Your task to perform on an android device: Go to Android settings Image 0: 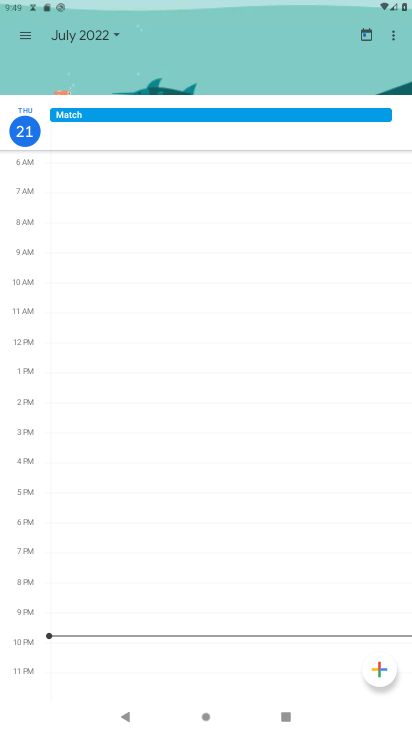
Step 0: press home button
Your task to perform on an android device: Go to Android settings Image 1: 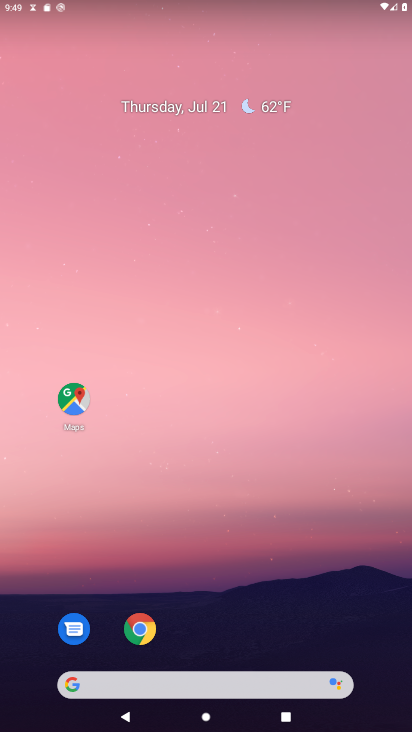
Step 1: drag from (240, 639) to (219, 287)
Your task to perform on an android device: Go to Android settings Image 2: 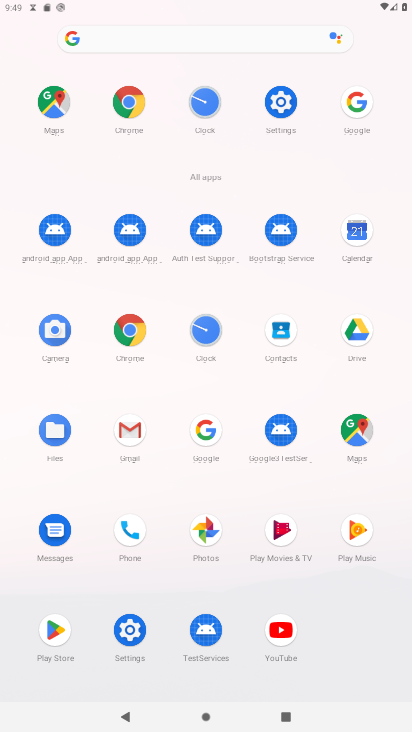
Step 2: click (277, 87)
Your task to perform on an android device: Go to Android settings Image 3: 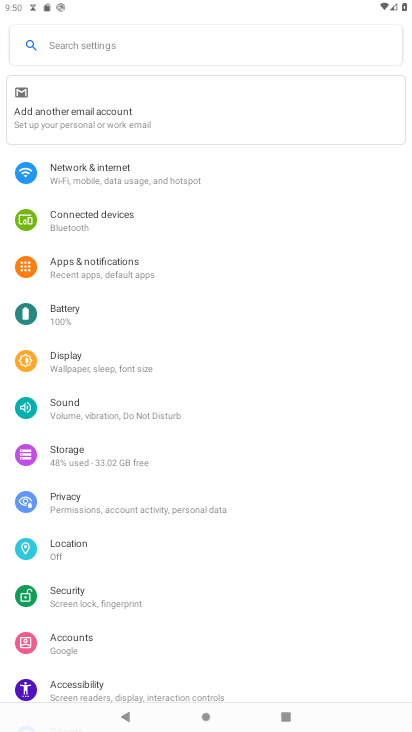
Step 3: task complete